Your task to perform on an android device: choose inbox layout in the gmail app Image 0: 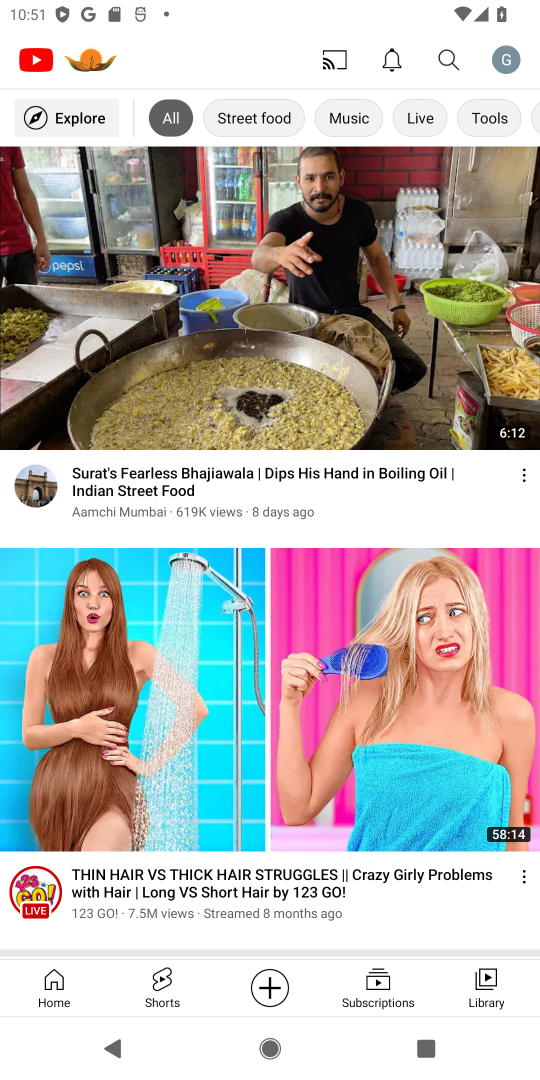
Step 0: press home button
Your task to perform on an android device: choose inbox layout in the gmail app Image 1: 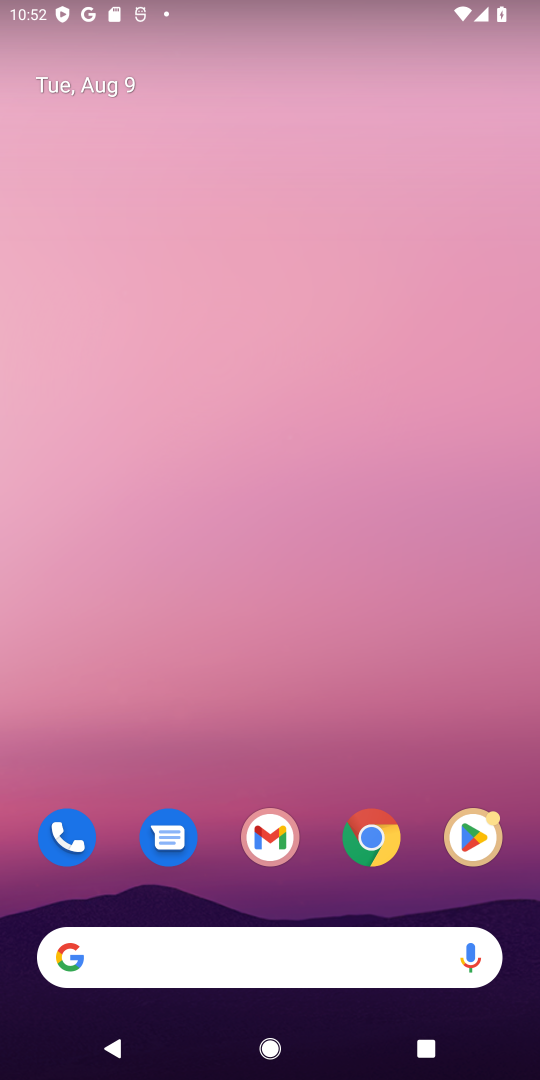
Step 1: drag from (306, 842) to (278, 432)
Your task to perform on an android device: choose inbox layout in the gmail app Image 2: 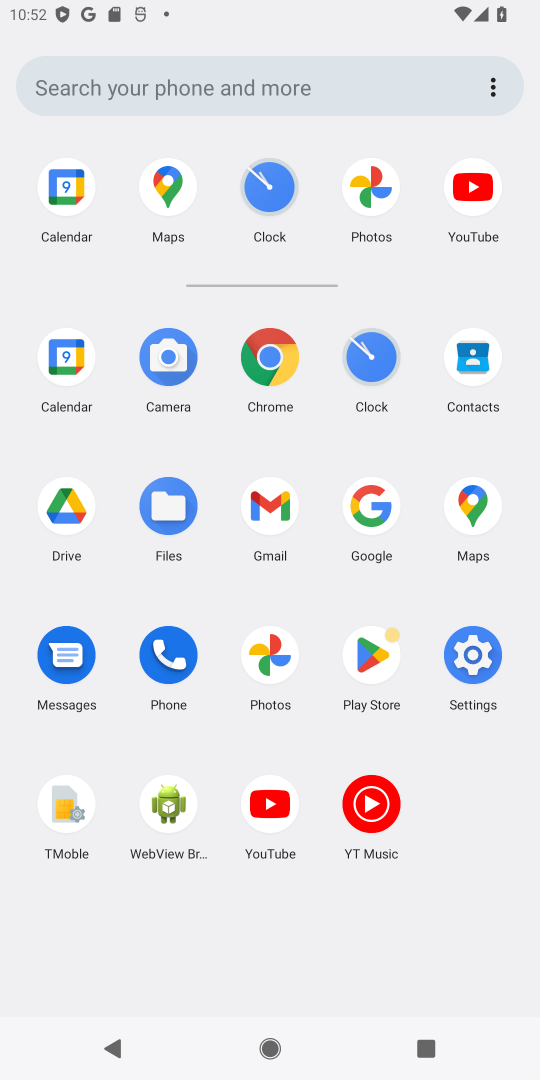
Step 2: click (265, 491)
Your task to perform on an android device: choose inbox layout in the gmail app Image 3: 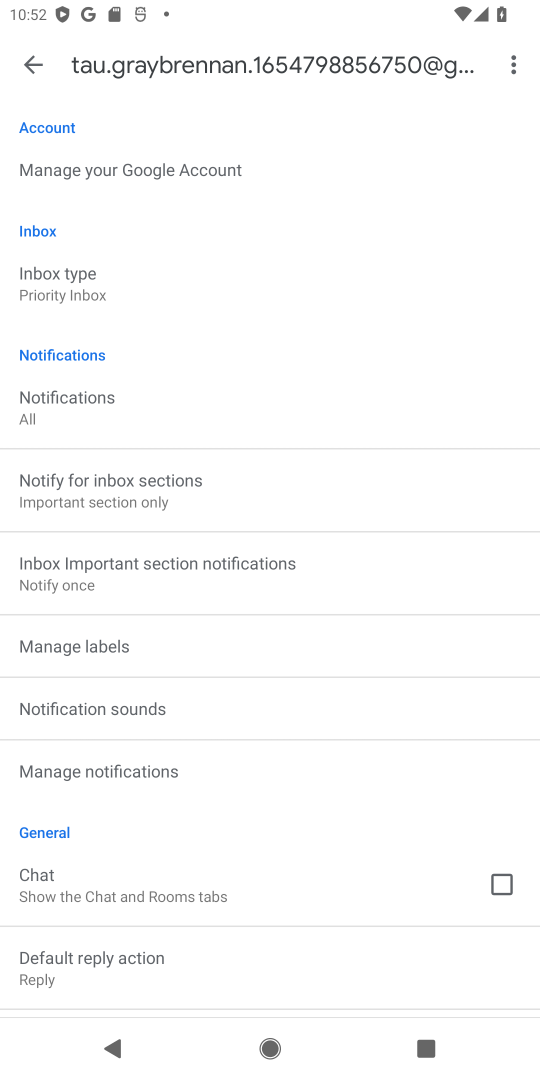
Step 3: click (63, 284)
Your task to perform on an android device: choose inbox layout in the gmail app Image 4: 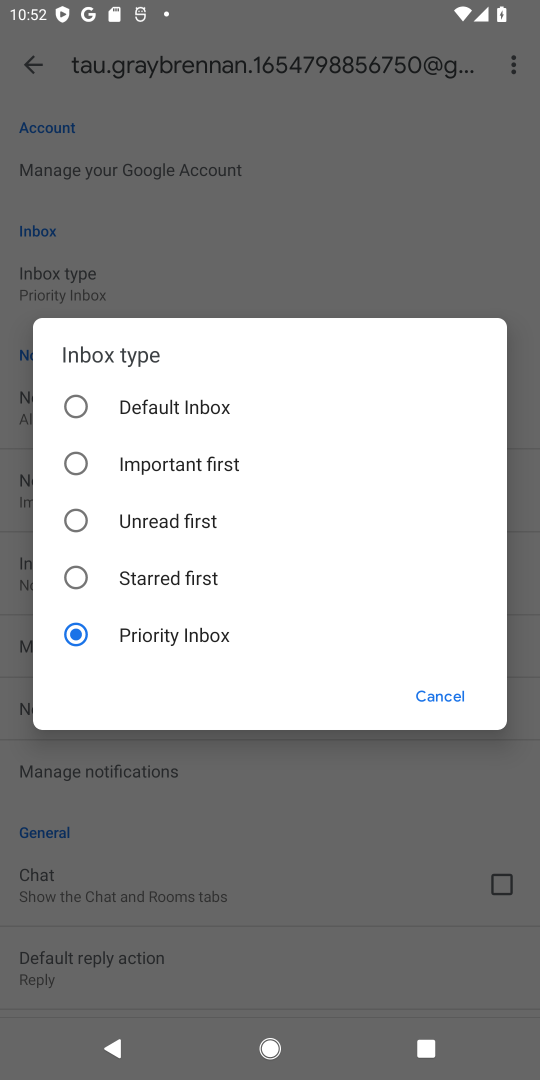
Step 4: click (66, 406)
Your task to perform on an android device: choose inbox layout in the gmail app Image 5: 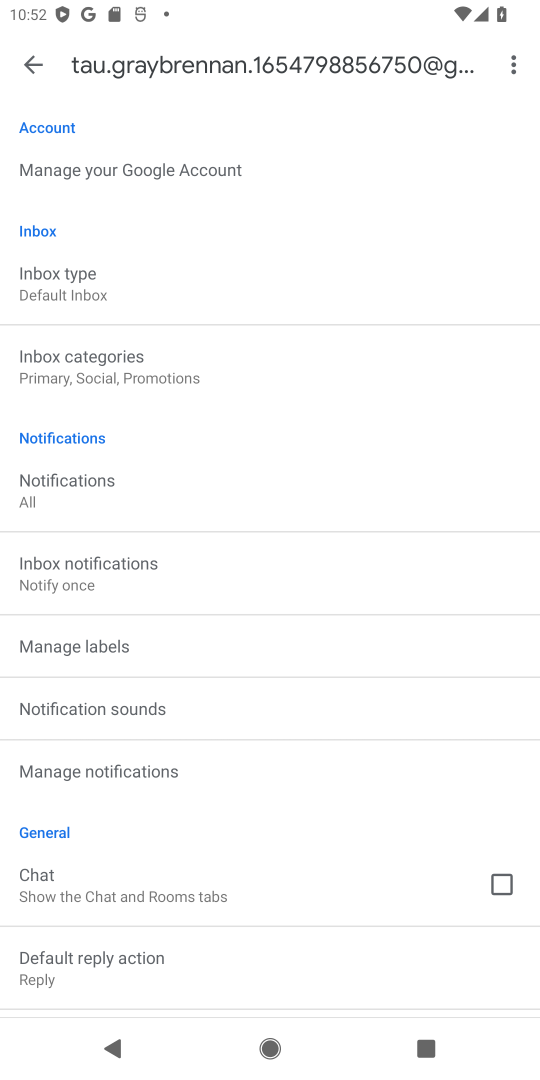
Step 5: task complete